Your task to perform on an android device: set the timer Image 0: 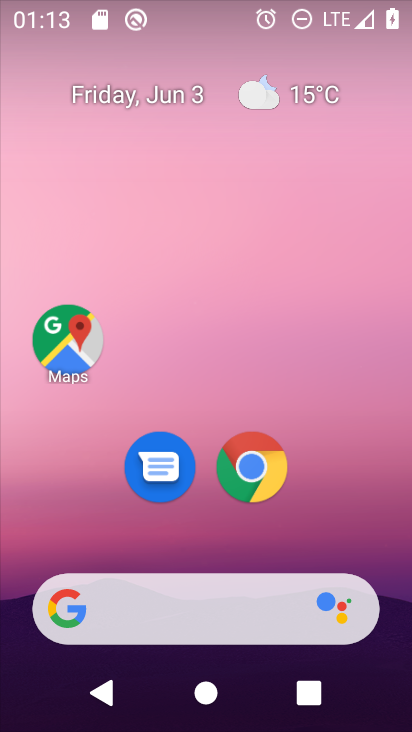
Step 0: drag from (398, 610) to (326, 54)
Your task to perform on an android device: set the timer Image 1: 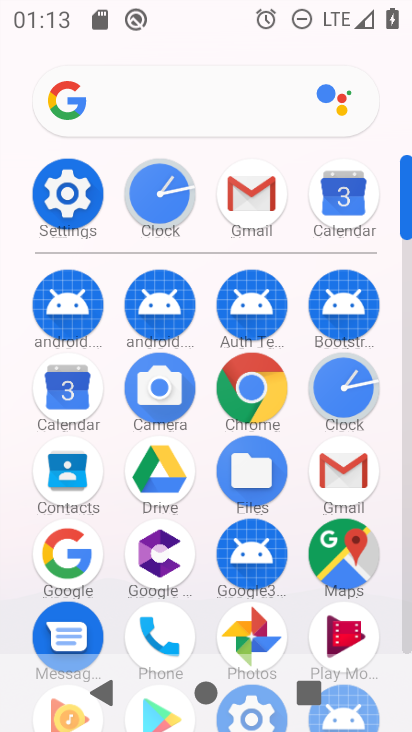
Step 1: click (403, 636)
Your task to perform on an android device: set the timer Image 2: 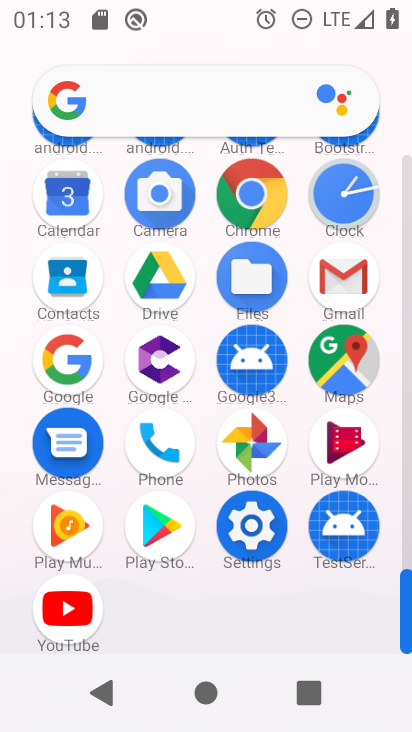
Step 2: click (336, 189)
Your task to perform on an android device: set the timer Image 3: 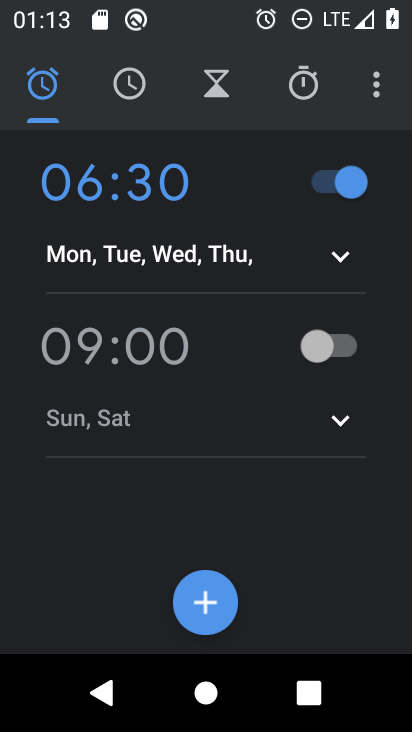
Step 3: click (210, 89)
Your task to perform on an android device: set the timer Image 4: 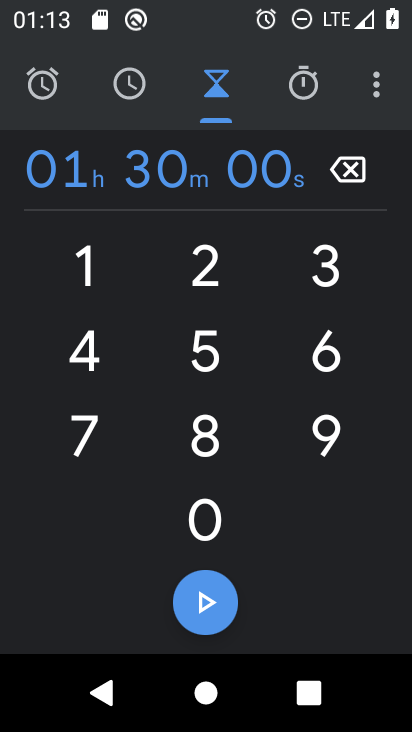
Step 4: task complete